Your task to perform on an android device: Open Google Chrome and open the bookmarks view Image 0: 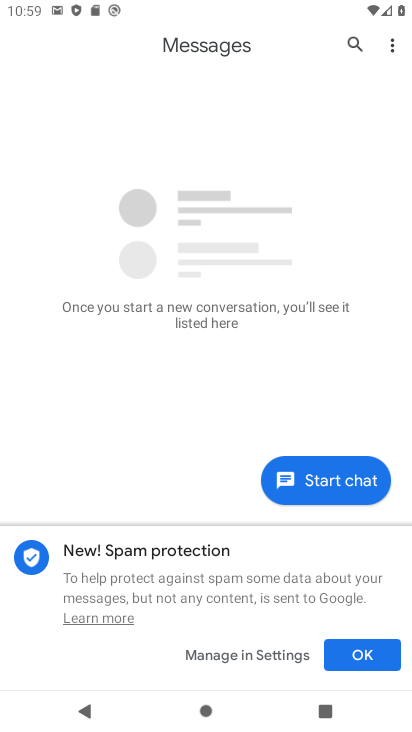
Step 0: press home button
Your task to perform on an android device: Open Google Chrome and open the bookmarks view Image 1: 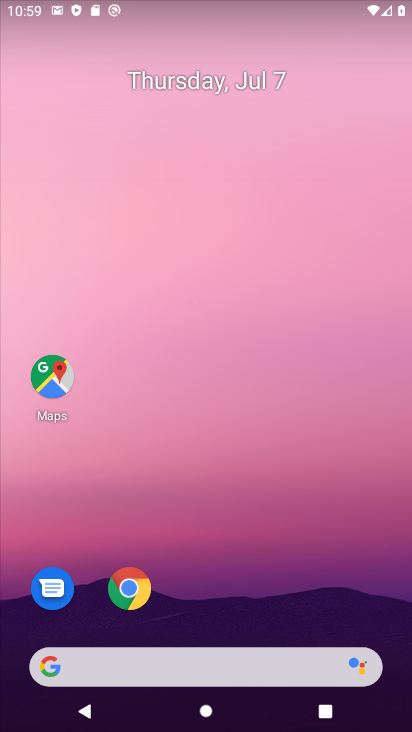
Step 1: drag from (193, 651) to (140, 25)
Your task to perform on an android device: Open Google Chrome and open the bookmarks view Image 2: 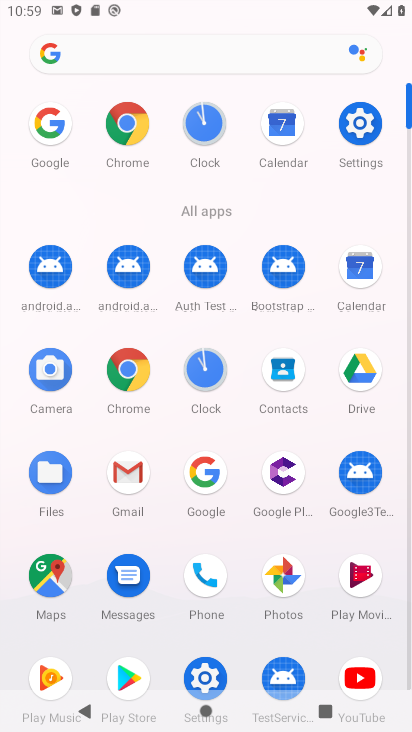
Step 2: click (142, 129)
Your task to perform on an android device: Open Google Chrome and open the bookmarks view Image 3: 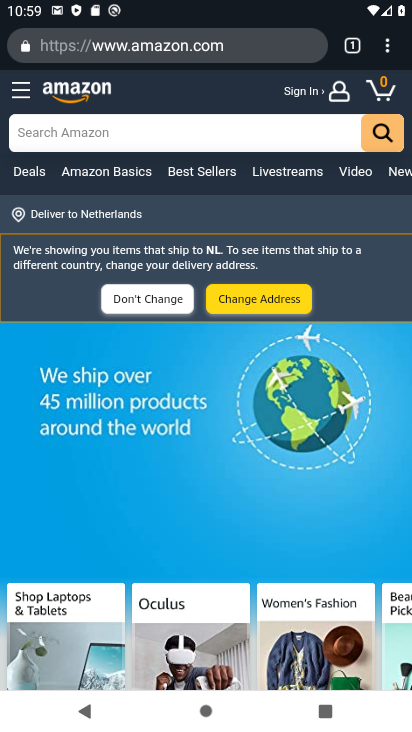
Step 3: press home button
Your task to perform on an android device: Open Google Chrome and open the bookmarks view Image 4: 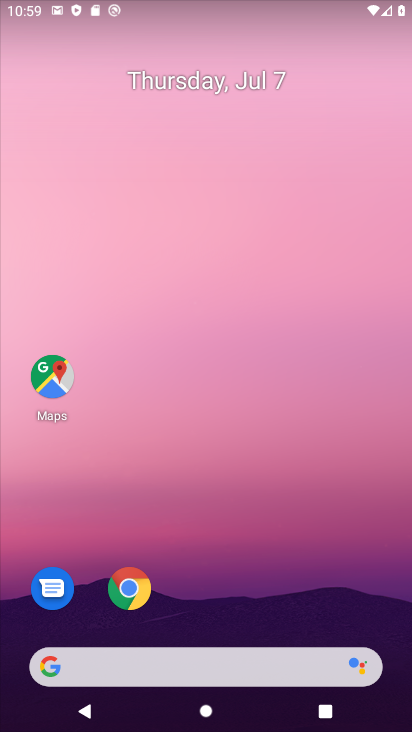
Step 4: drag from (212, 625) to (190, 24)
Your task to perform on an android device: Open Google Chrome and open the bookmarks view Image 5: 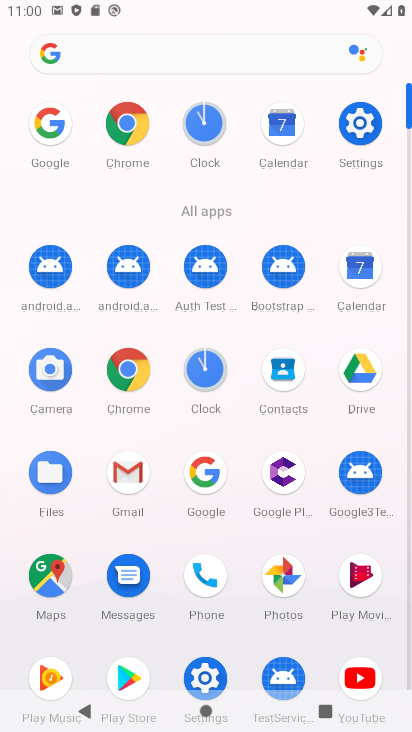
Step 5: click (140, 121)
Your task to perform on an android device: Open Google Chrome and open the bookmarks view Image 6: 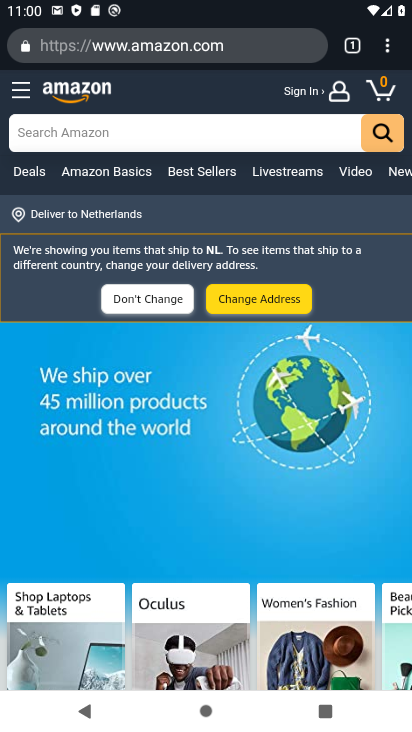
Step 6: task complete